Your task to perform on an android device: When is my next appointment? Image 0: 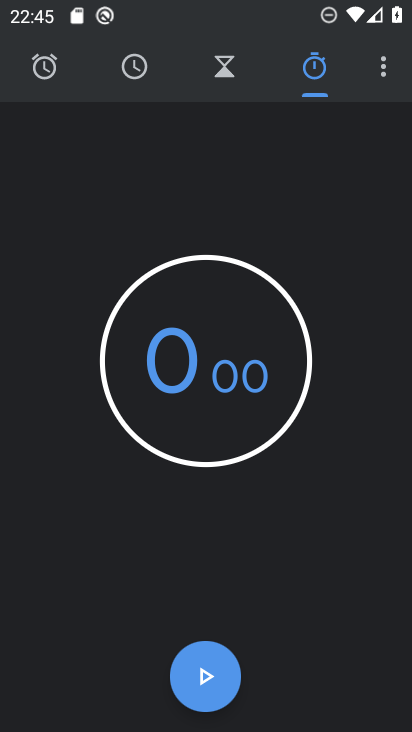
Step 0: press home button
Your task to perform on an android device: When is my next appointment? Image 1: 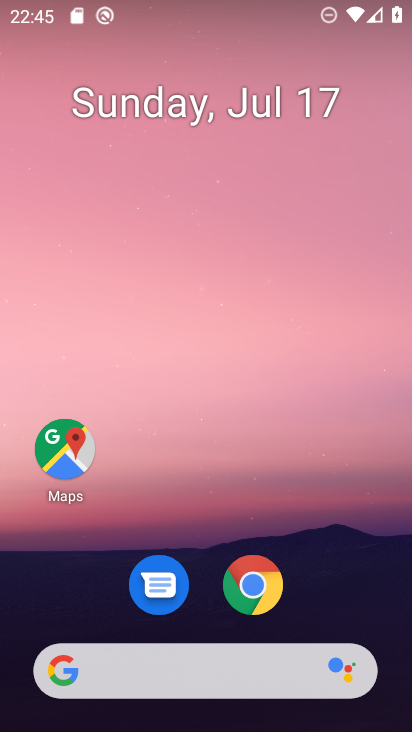
Step 1: drag from (208, 630) to (318, 66)
Your task to perform on an android device: When is my next appointment? Image 2: 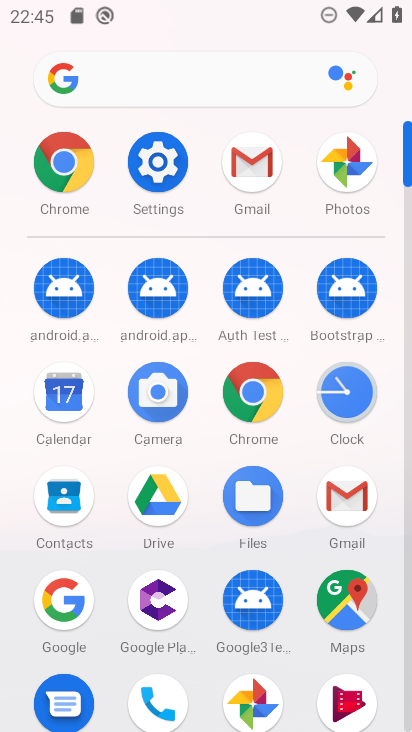
Step 2: click (64, 400)
Your task to perform on an android device: When is my next appointment? Image 3: 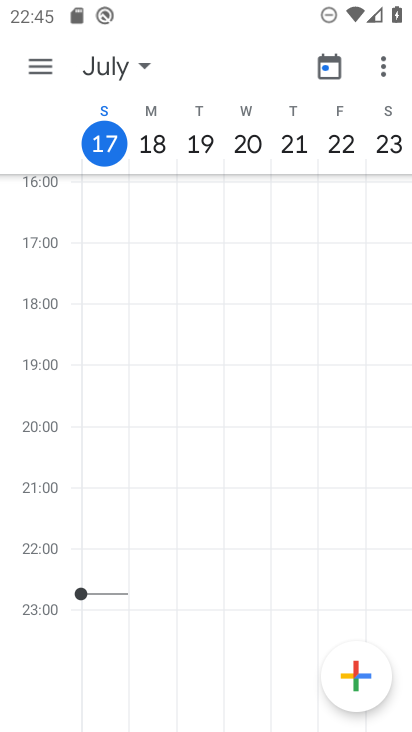
Step 3: click (40, 77)
Your task to perform on an android device: When is my next appointment? Image 4: 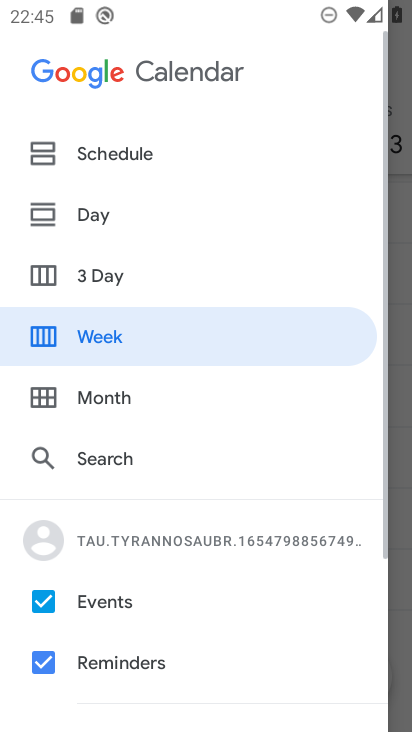
Step 4: click (115, 157)
Your task to perform on an android device: When is my next appointment? Image 5: 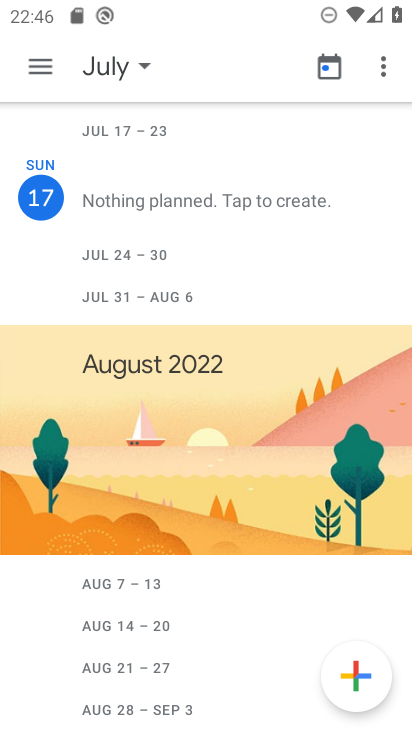
Step 5: task complete